Your task to perform on an android device: View the shopping cart on ebay.com. Search for "energizer triple a" on ebay.com, select the first entry, and add it to the cart. Image 0: 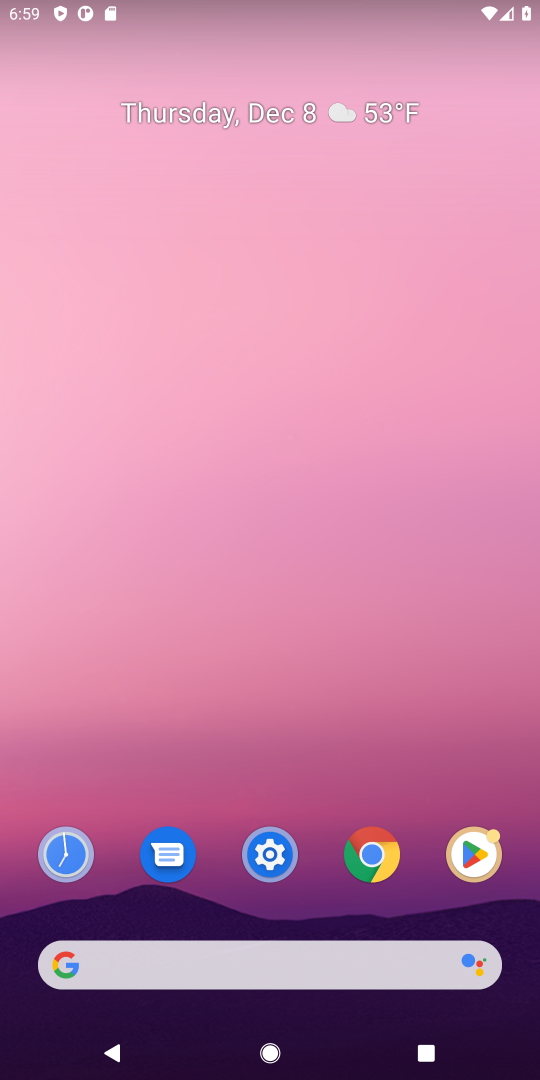
Step 0: press home button
Your task to perform on an android device: View the shopping cart on ebay.com. Search for "energizer triple a" on ebay.com, select the first entry, and add it to the cart. Image 1: 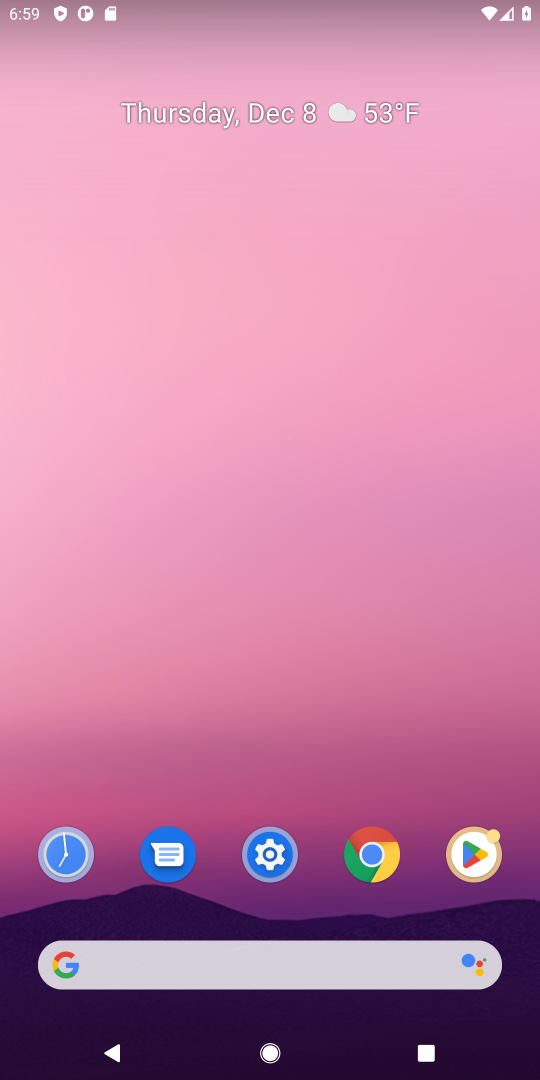
Step 1: click (106, 961)
Your task to perform on an android device: View the shopping cart on ebay.com. Search for "energizer triple a" on ebay.com, select the first entry, and add it to the cart. Image 2: 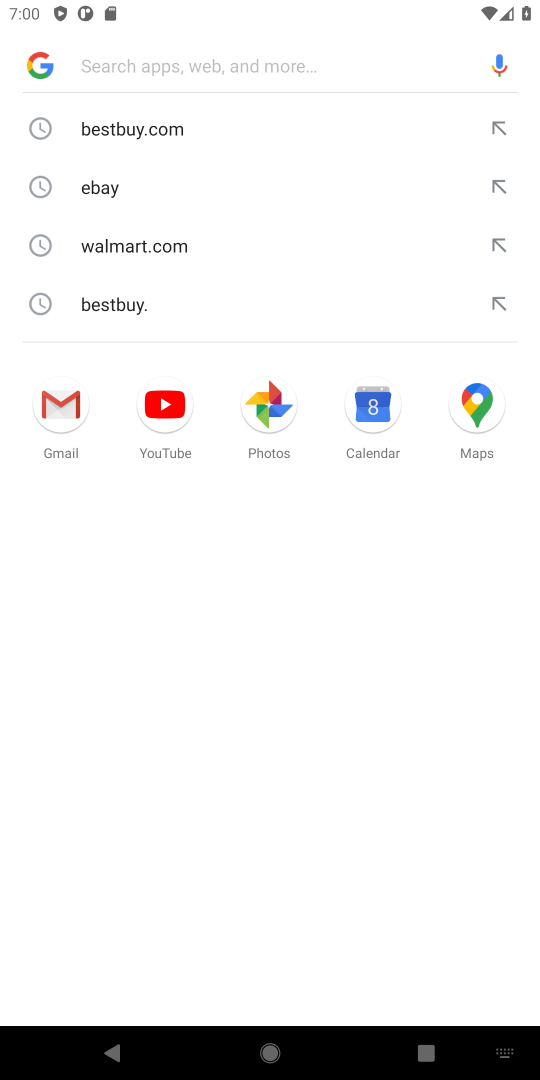
Step 2: type "ebay.com"
Your task to perform on an android device: View the shopping cart on ebay.com. Search for "energizer triple a" on ebay.com, select the first entry, and add it to the cart. Image 3: 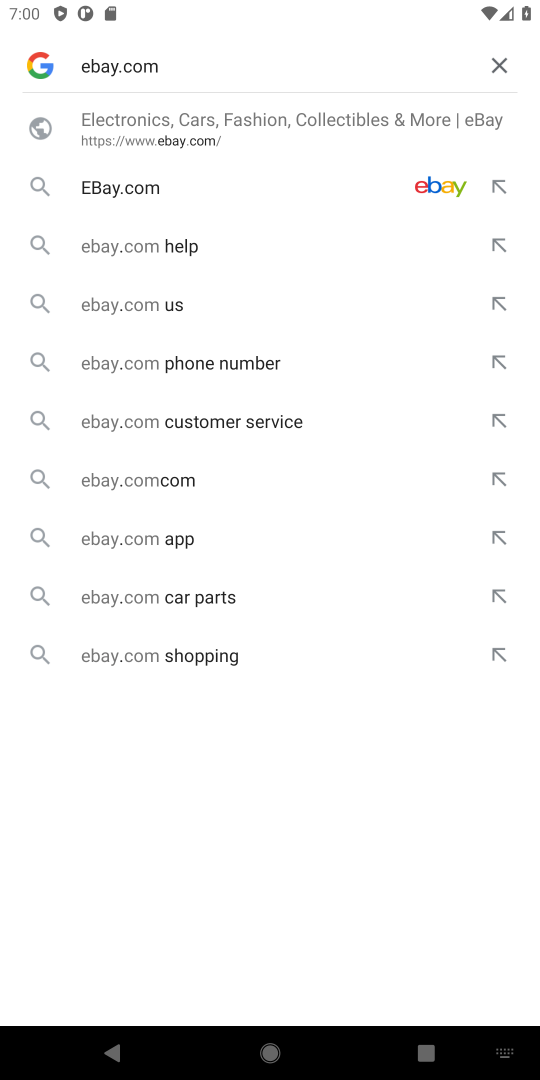
Step 3: press enter
Your task to perform on an android device: View the shopping cart on ebay.com. Search for "energizer triple a" on ebay.com, select the first entry, and add it to the cart. Image 4: 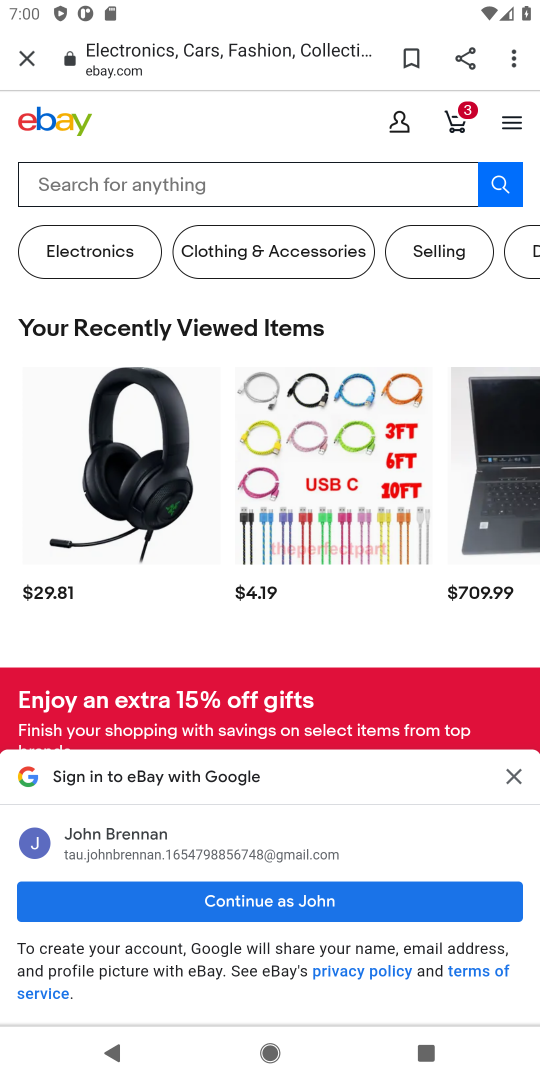
Step 4: click (460, 115)
Your task to perform on an android device: View the shopping cart on ebay.com. Search for "energizer triple a" on ebay.com, select the first entry, and add it to the cart. Image 5: 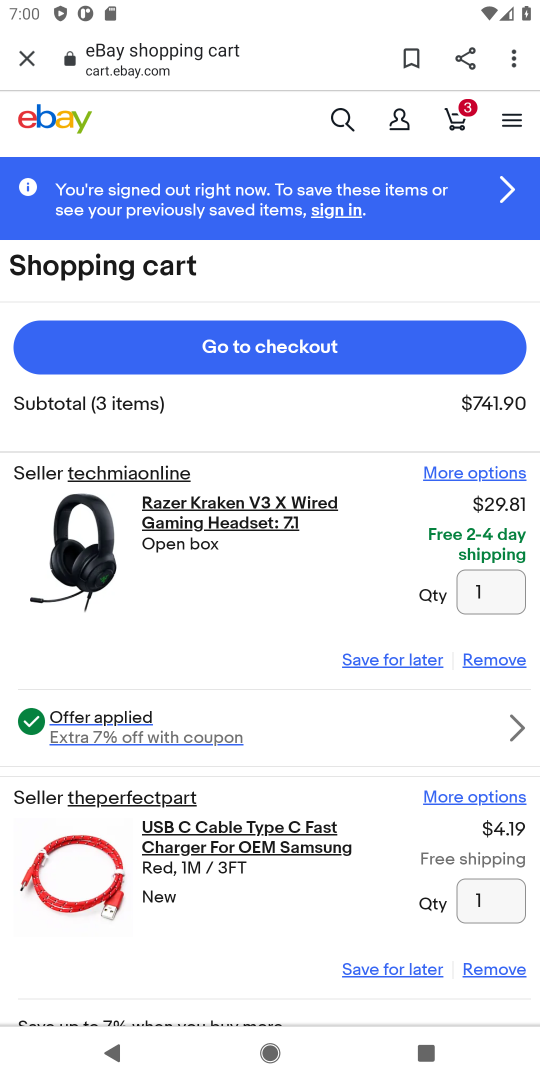
Step 5: click (342, 116)
Your task to perform on an android device: View the shopping cart on ebay.com. Search for "energizer triple a" on ebay.com, select the first entry, and add it to the cart. Image 6: 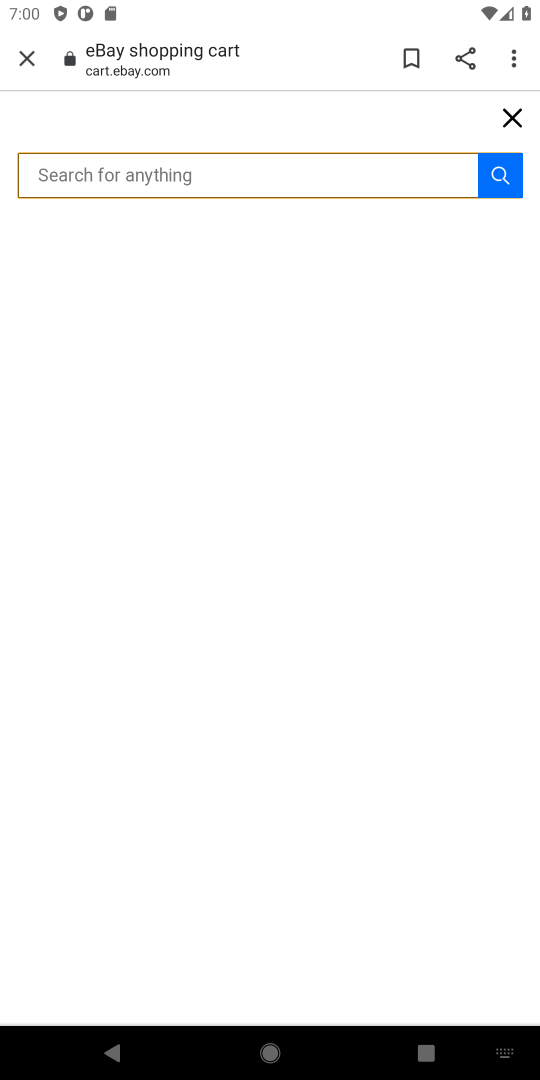
Step 6: type "energizer triple a"
Your task to perform on an android device: View the shopping cart on ebay.com. Search for "energizer triple a" on ebay.com, select the first entry, and add it to the cart. Image 7: 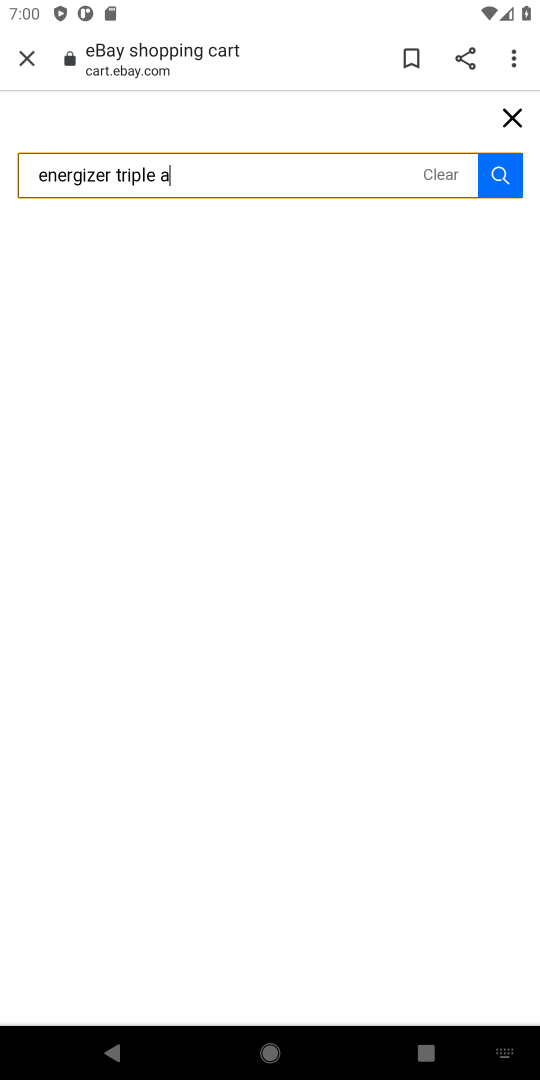
Step 7: press enter
Your task to perform on an android device: View the shopping cart on ebay.com. Search for "energizer triple a" on ebay.com, select the first entry, and add it to the cart. Image 8: 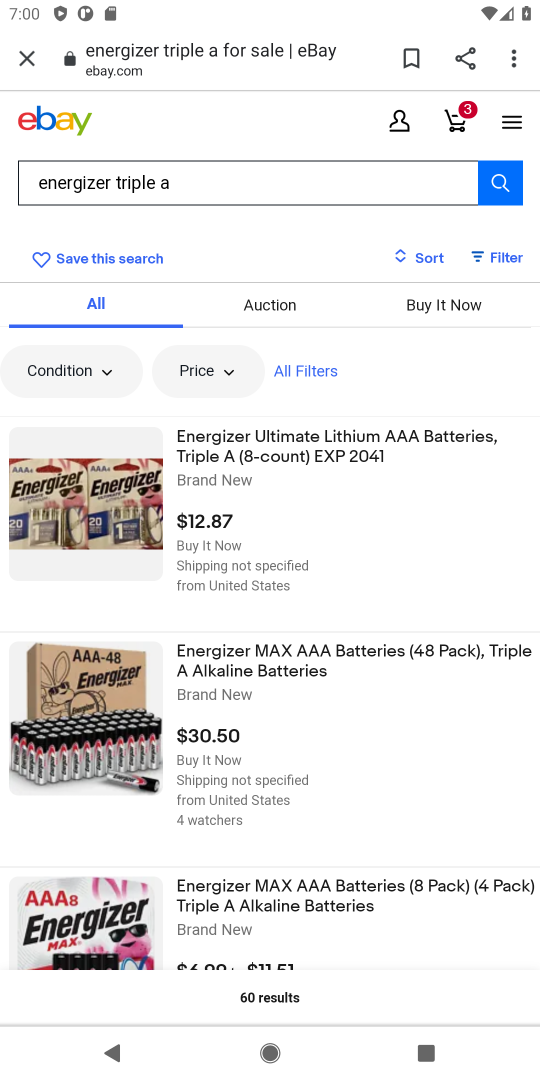
Step 8: click (276, 450)
Your task to perform on an android device: View the shopping cart on ebay.com. Search for "energizer triple a" on ebay.com, select the first entry, and add it to the cart. Image 9: 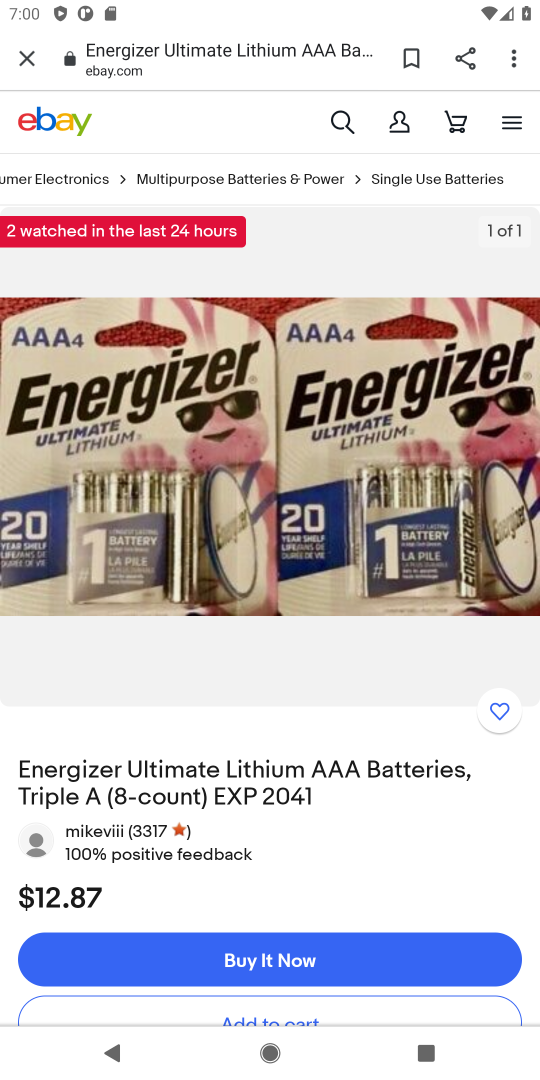
Step 9: drag from (354, 836) to (356, 399)
Your task to perform on an android device: View the shopping cart on ebay.com. Search for "energizer triple a" on ebay.com, select the first entry, and add it to the cart. Image 10: 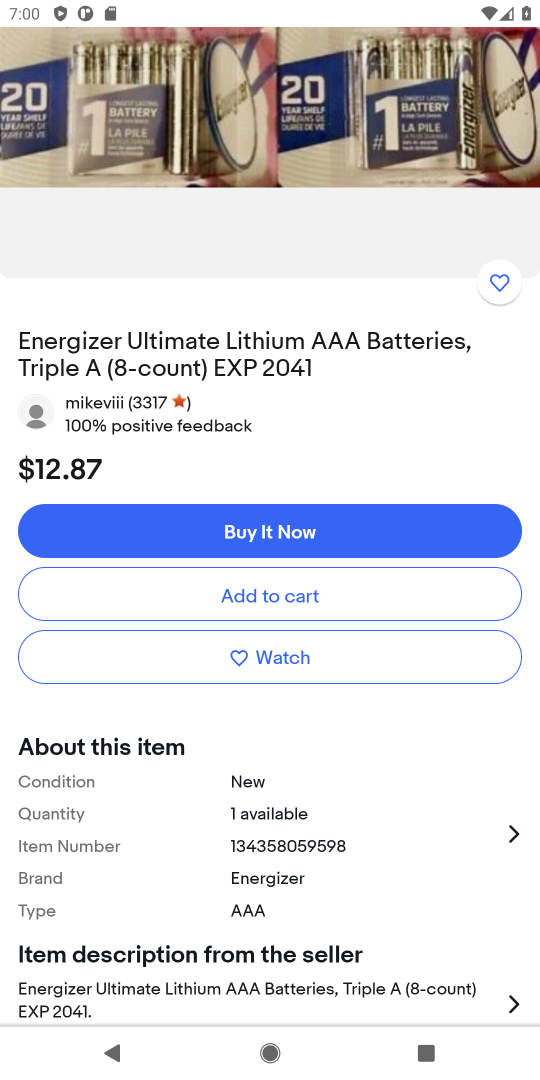
Step 10: click (248, 603)
Your task to perform on an android device: View the shopping cart on ebay.com. Search for "energizer triple a" on ebay.com, select the first entry, and add it to the cart. Image 11: 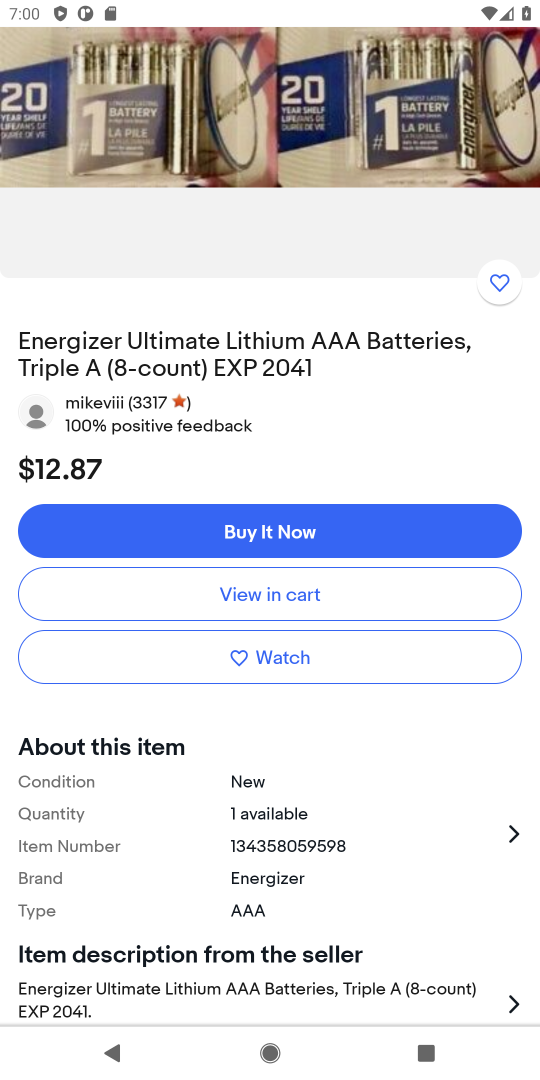
Step 11: task complete